Your task to perform on an android device: open app "YouTube Kids" (install if not already installed) Image 0: 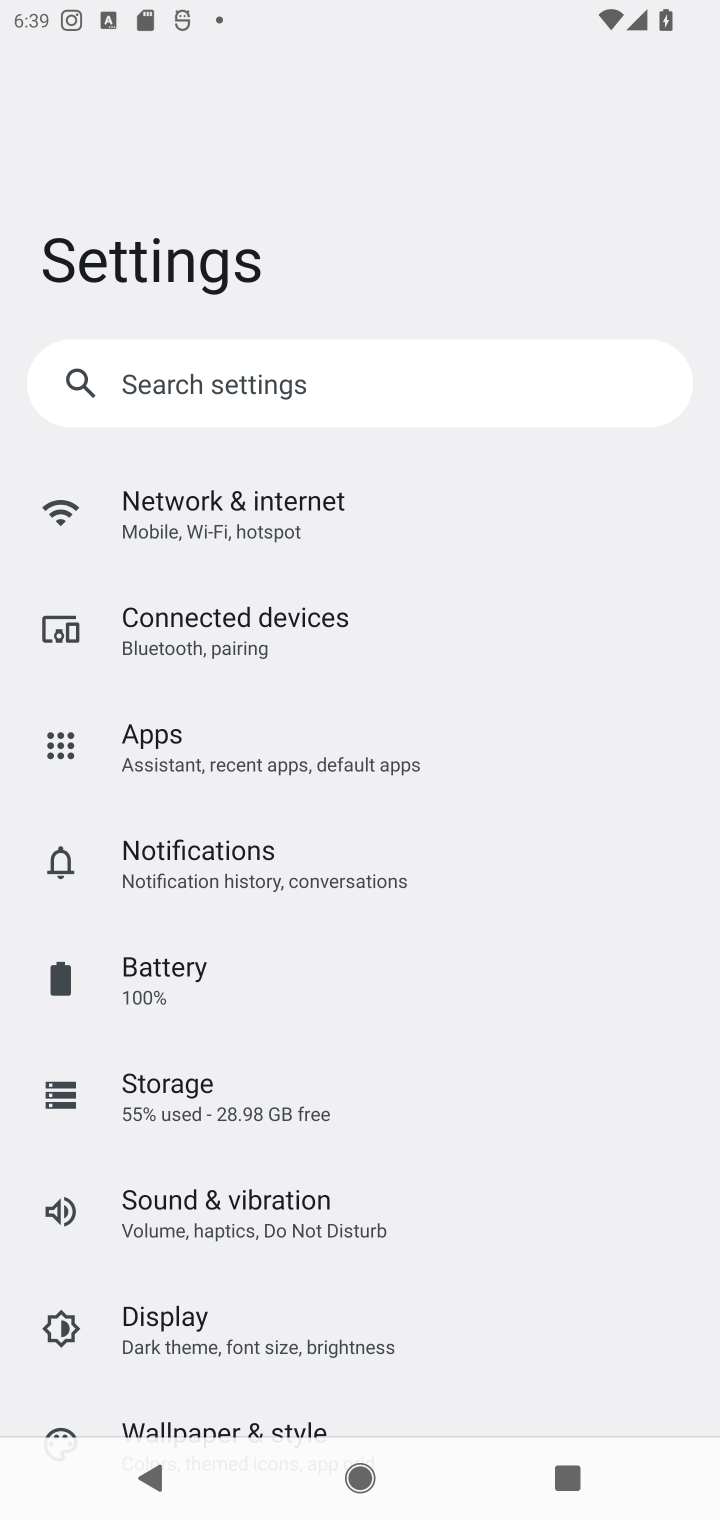
Step 0: press home button
Your task to perform on an android device: open app "YouTube Kids" (install if not already installed) Image 1: 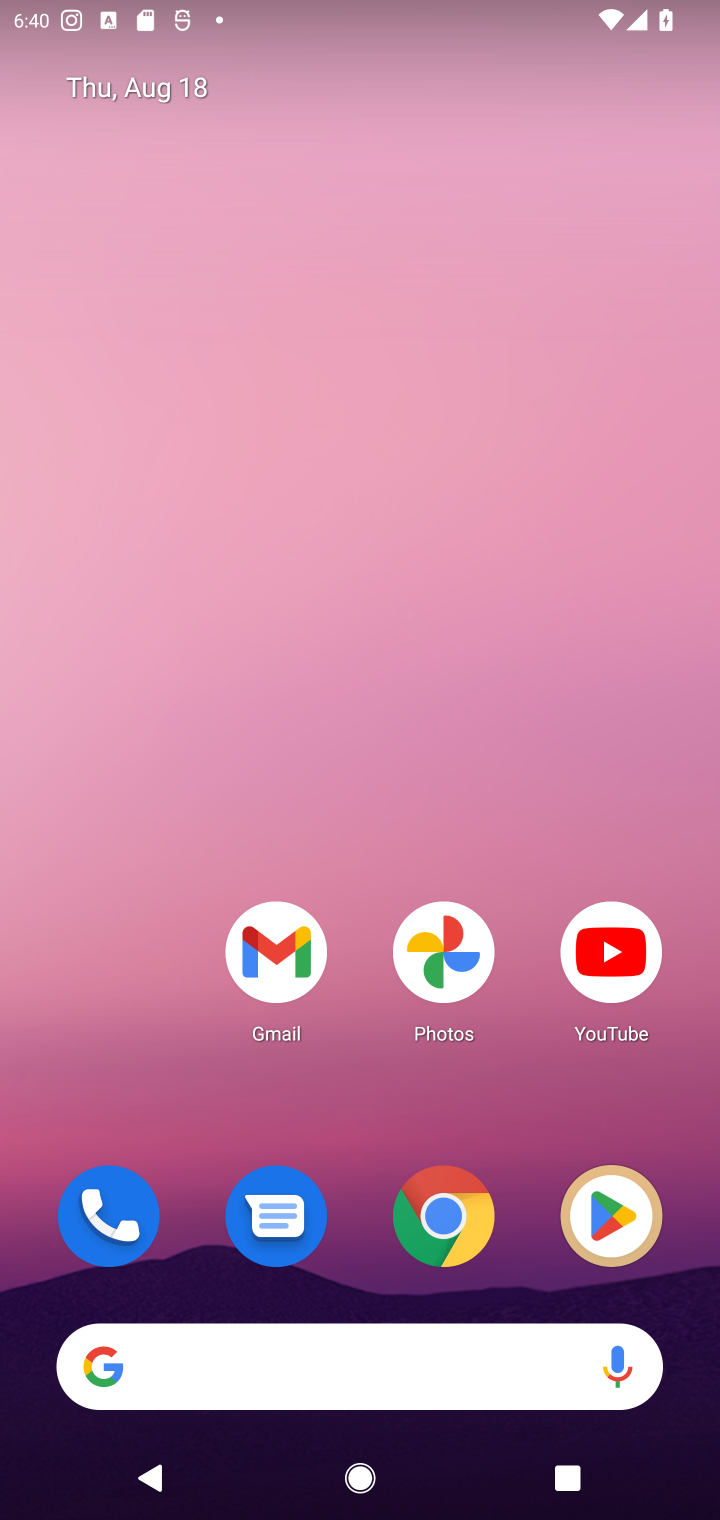
Step 1: click (582, 1207)
Your task to perform on an android device: open app "YouTube Kids" (install if not already installed) Image 2: 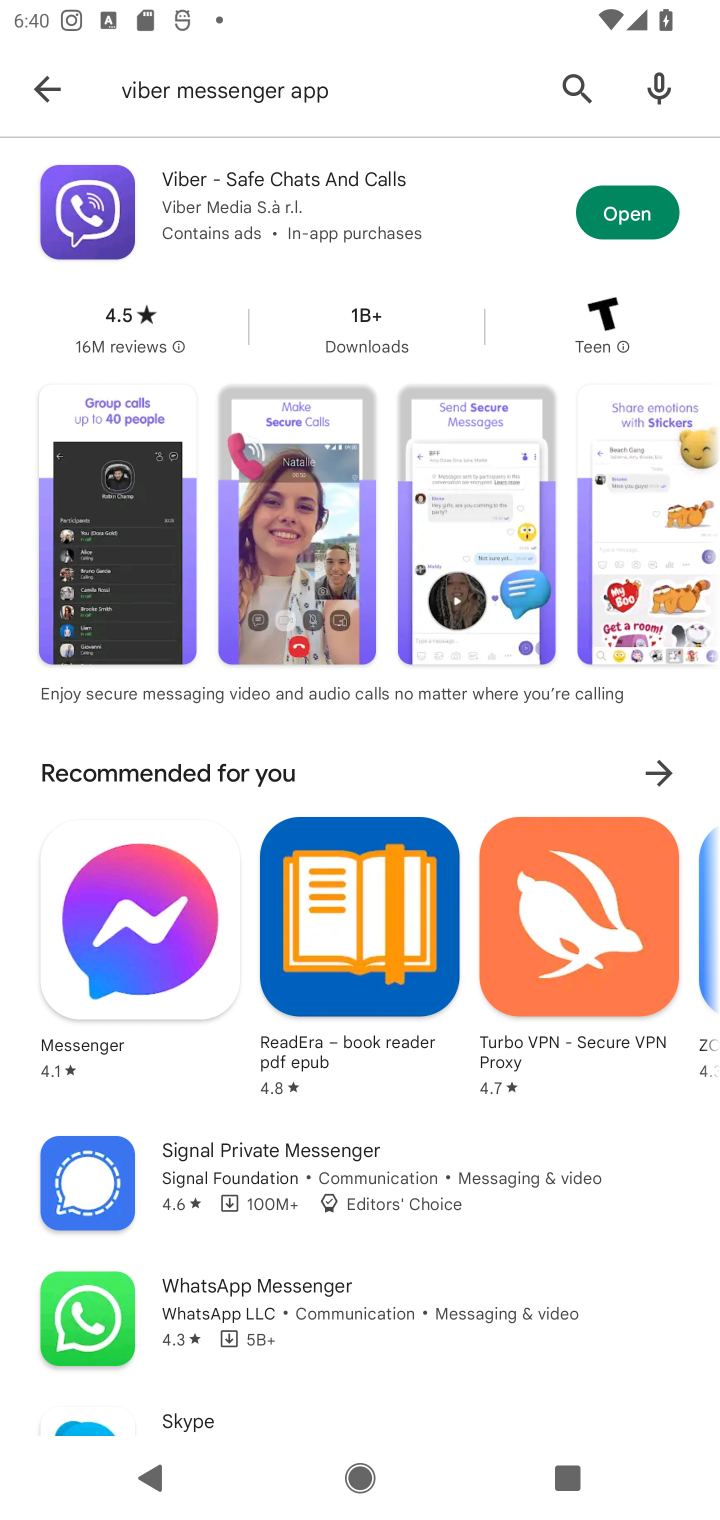
Step 2: click (564, 71)
Your task to perform on an android device: open app "YouTube Kids" (install if not already installed) Image 3: 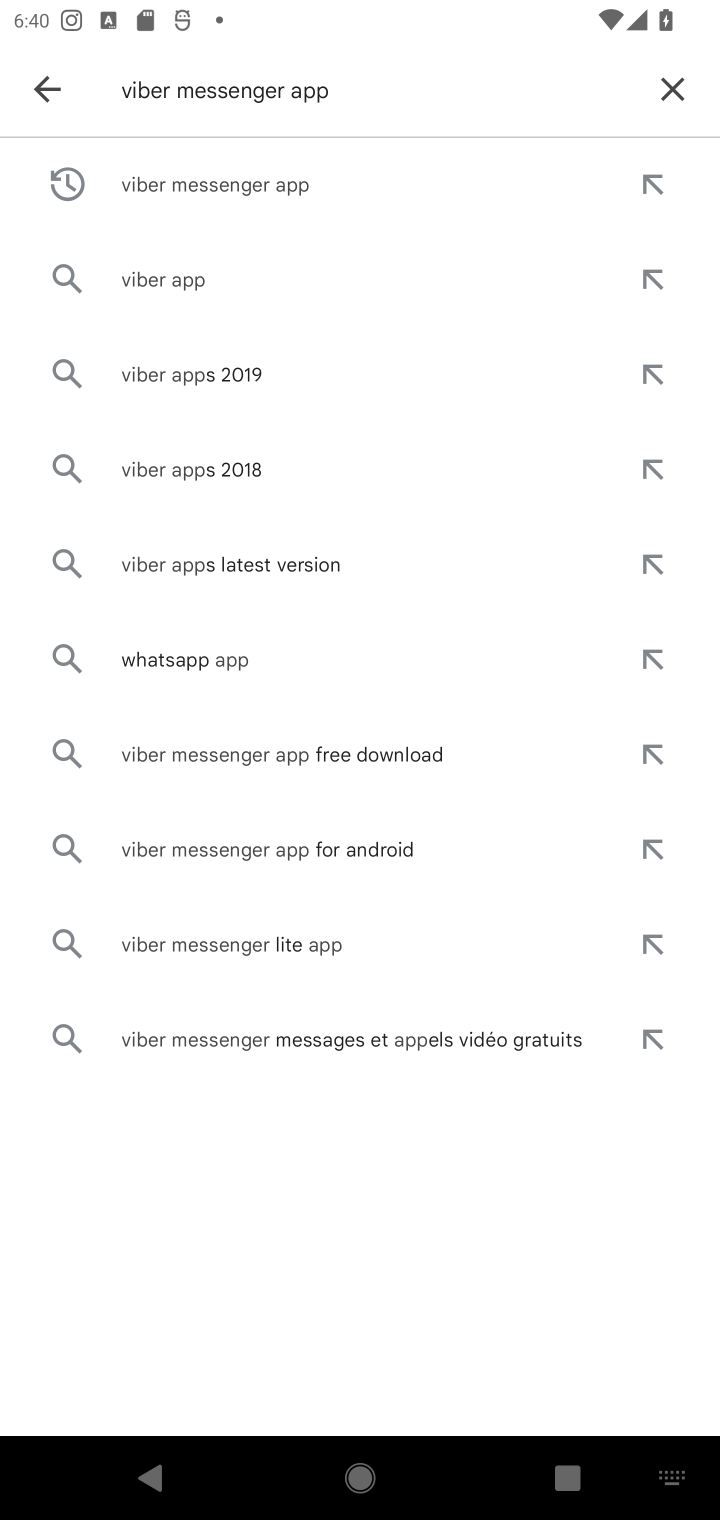
Step 3: click (657, 81)
Your task to perform on an android device: open app "YouTube Kids" (install if not already installed) Image 4: 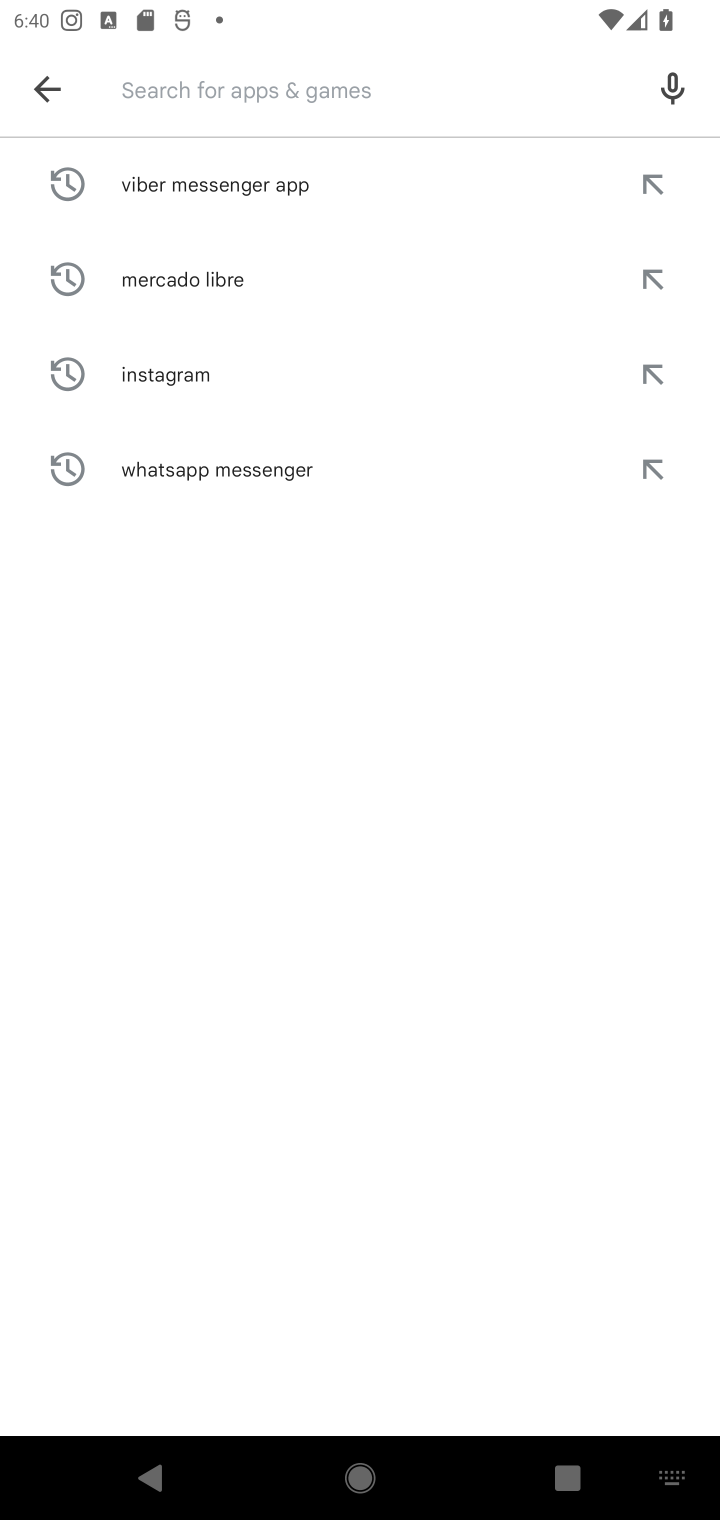
Step 4: type "YouTube Kids"
Your task to perform on an android device: open app "YouTube Kids" (install if not already installed) Image 5: 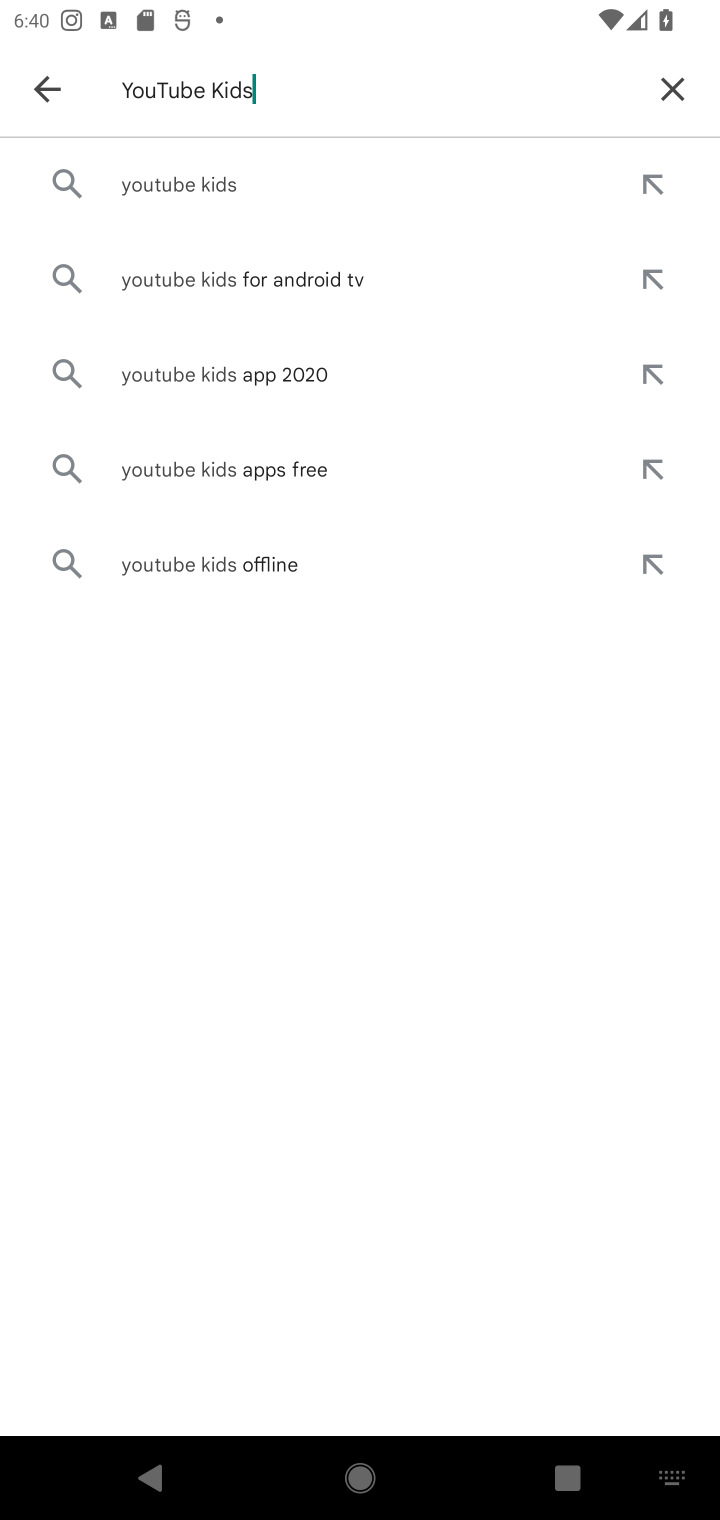
Step 5: click (249, 178)
Your task to perform on an android device: open app "YouTube Kids" (install if not already installed) Image 6: 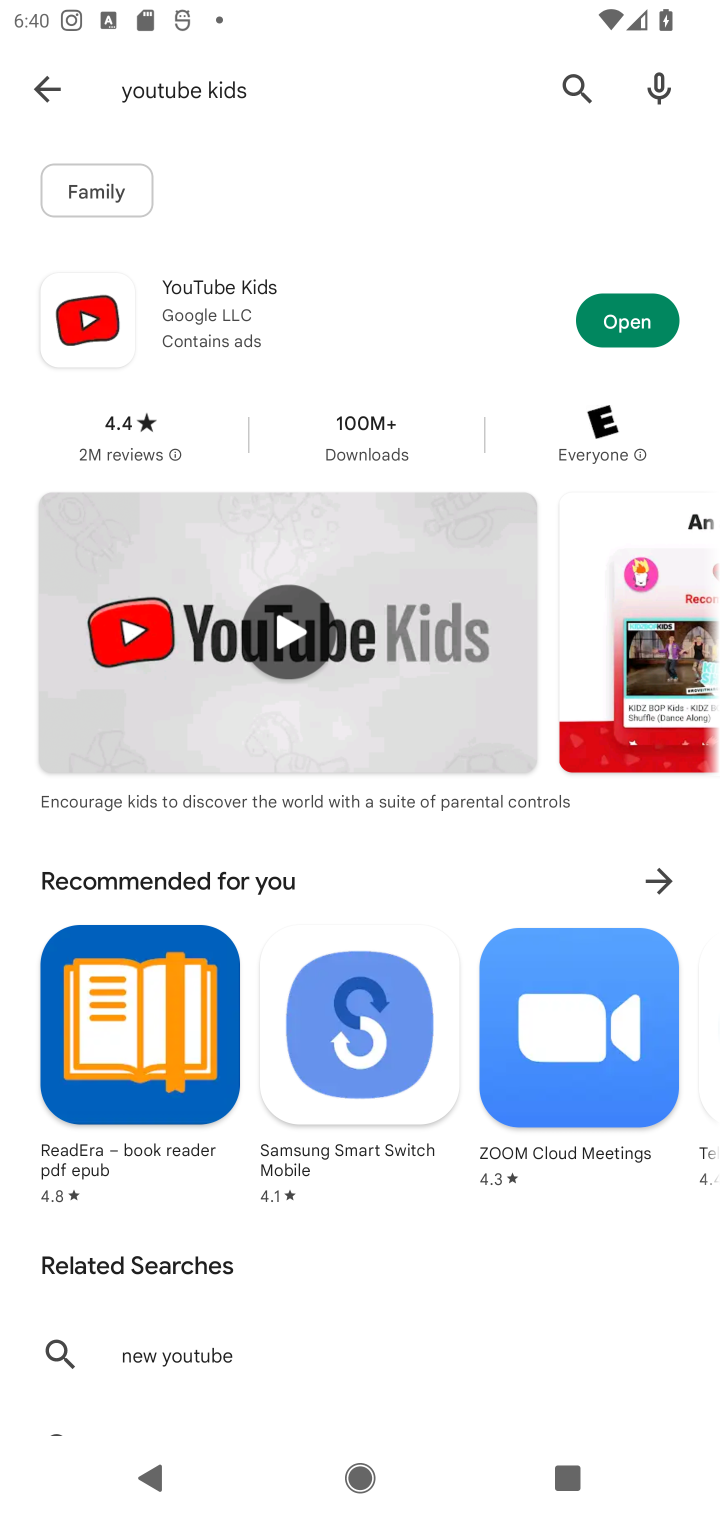
Step 6: click (645, 328)
Your task to perform on an android device: open app "YouTube Kids" (install if not already installed) Image 7: 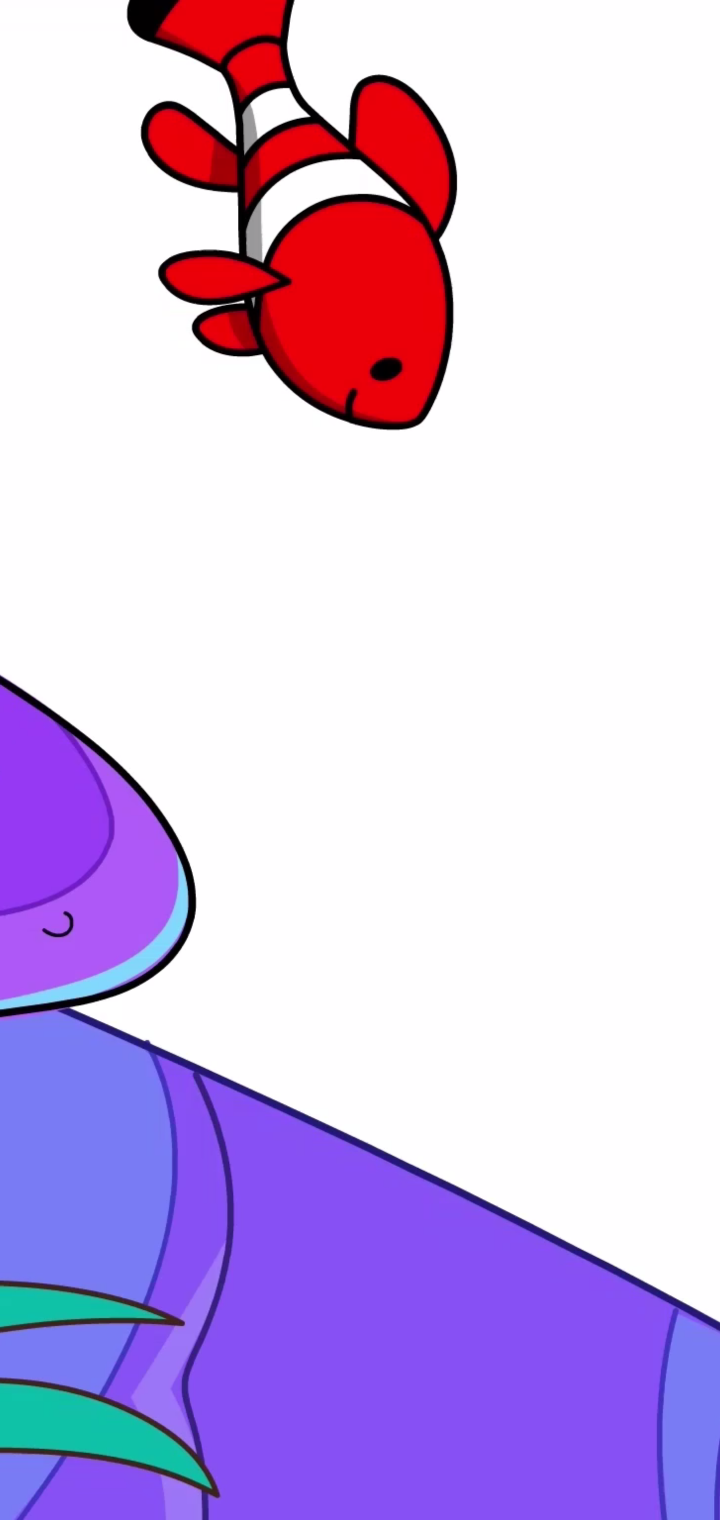
Step 7: task complete